Your task to perform on an android device: Open notification settings Image 0: 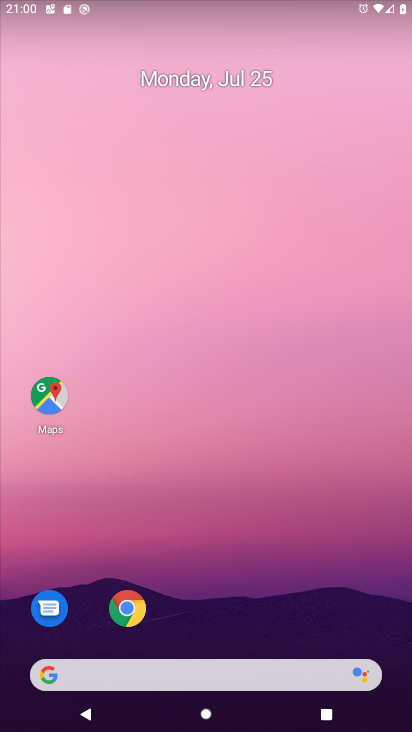
Step 0: drag from (299, 581) to (275, 86)
Your task to perform on an android device: Open notification settings Image 1: 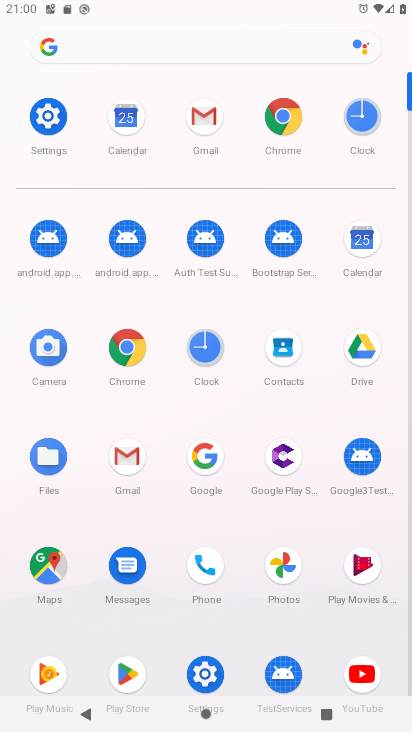
Step 1: click (38, 100)
Your task to perform on an android device: Open notification settings Image 2: 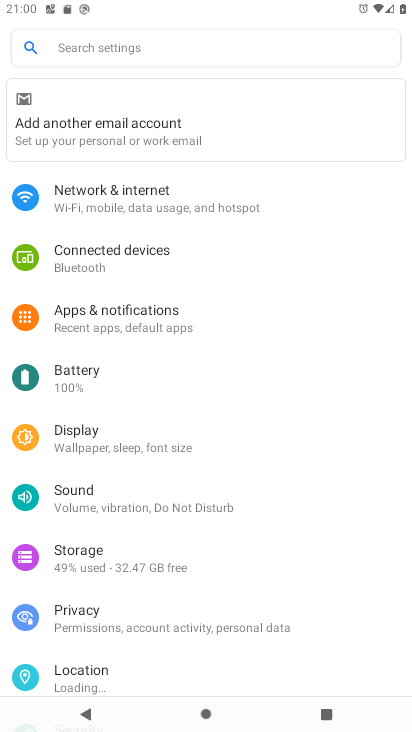
Step 2: click (144, 311)
Your task to perform on an android device: Open notification settings Image 3: 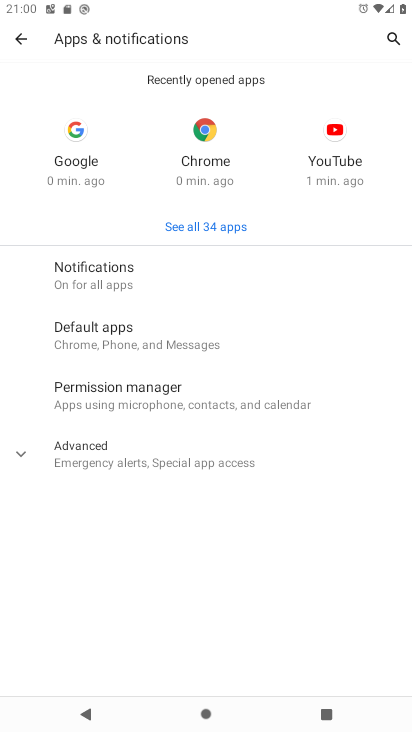
Step 3: click (104, 279)
Your task to perform on an android device: Open notification settings Image 4: 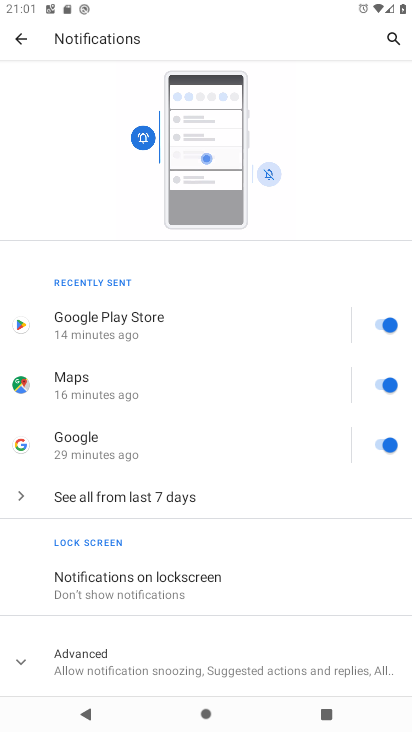
Step 4: task complete